Your task to perform on an android device: install app "DoorDash - Dasher" Image 0: 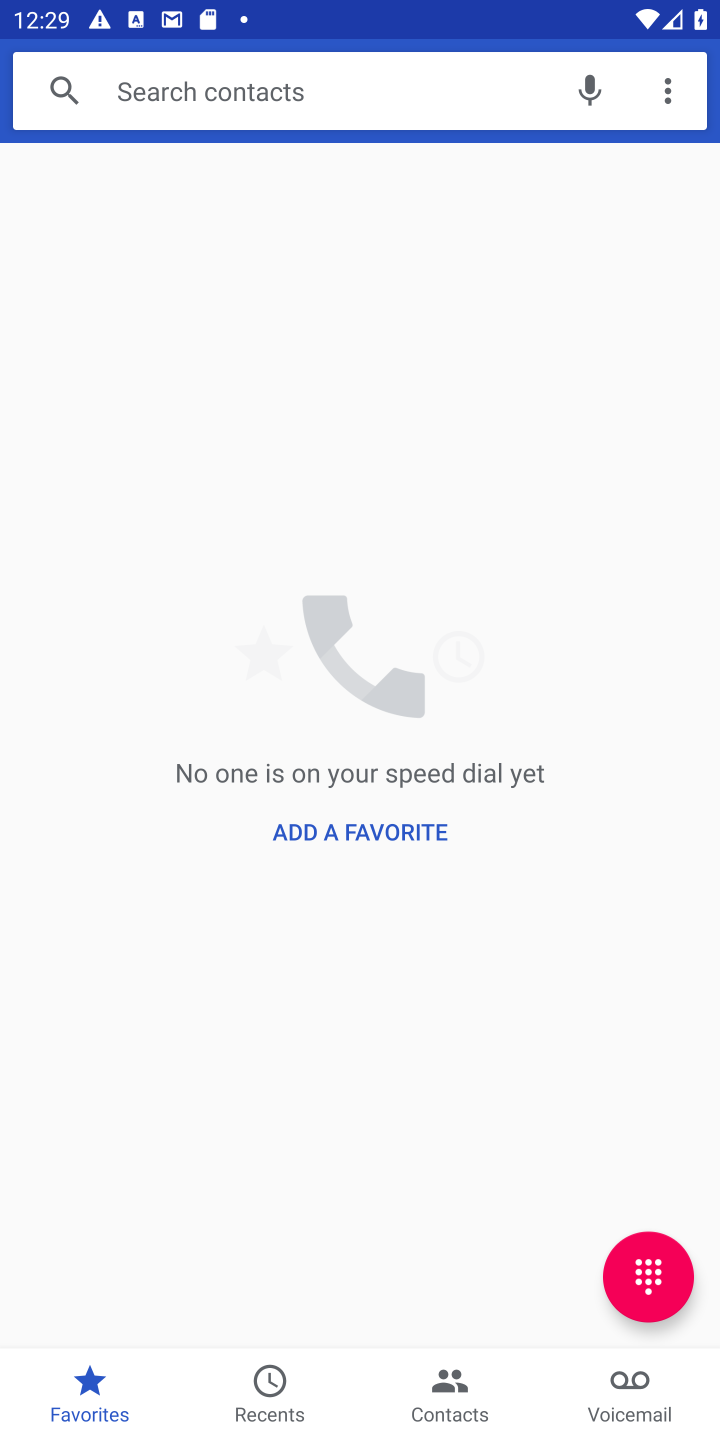
Step 0: press home button
Your task to perform on an android device: install app "DoorDash - Dasher" Image 1: 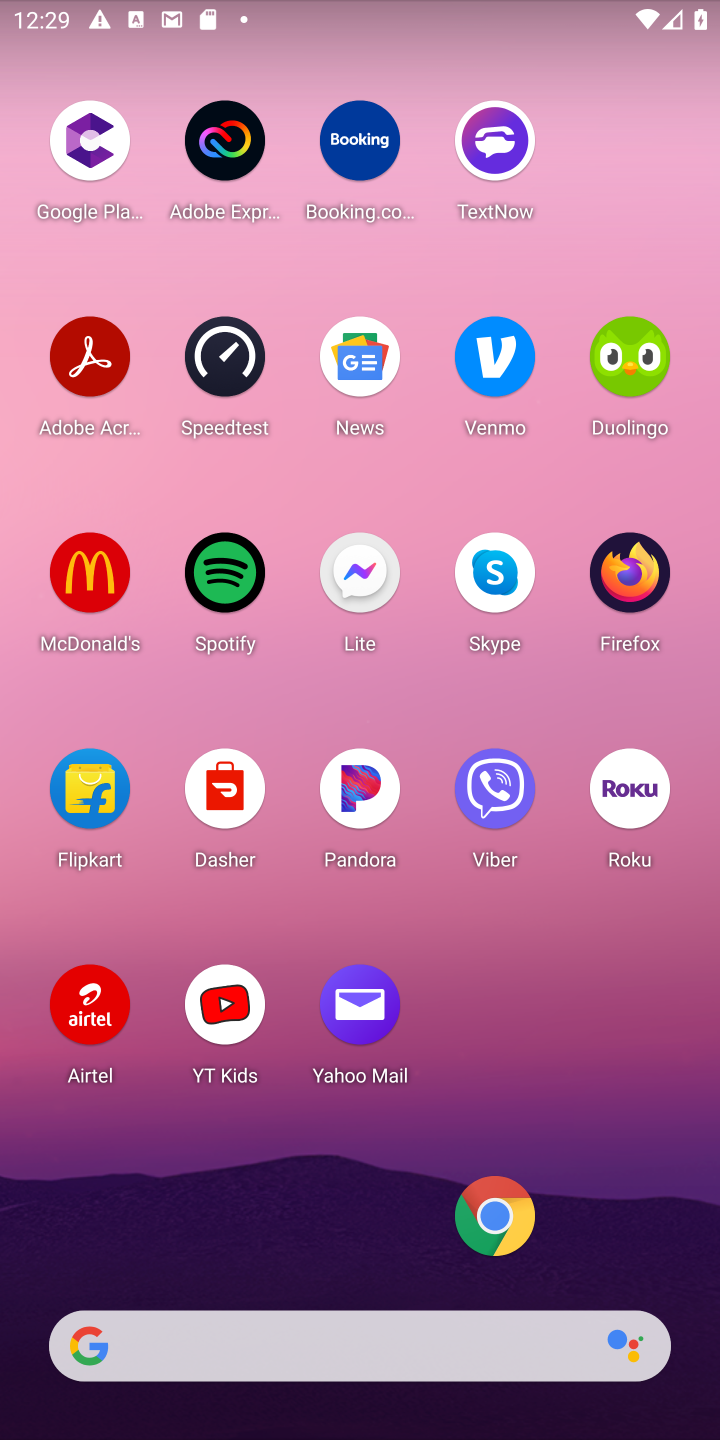
Step 1: press home button
Your task to perform on an android device: install app "DoorDash - Dasher" Image 2: 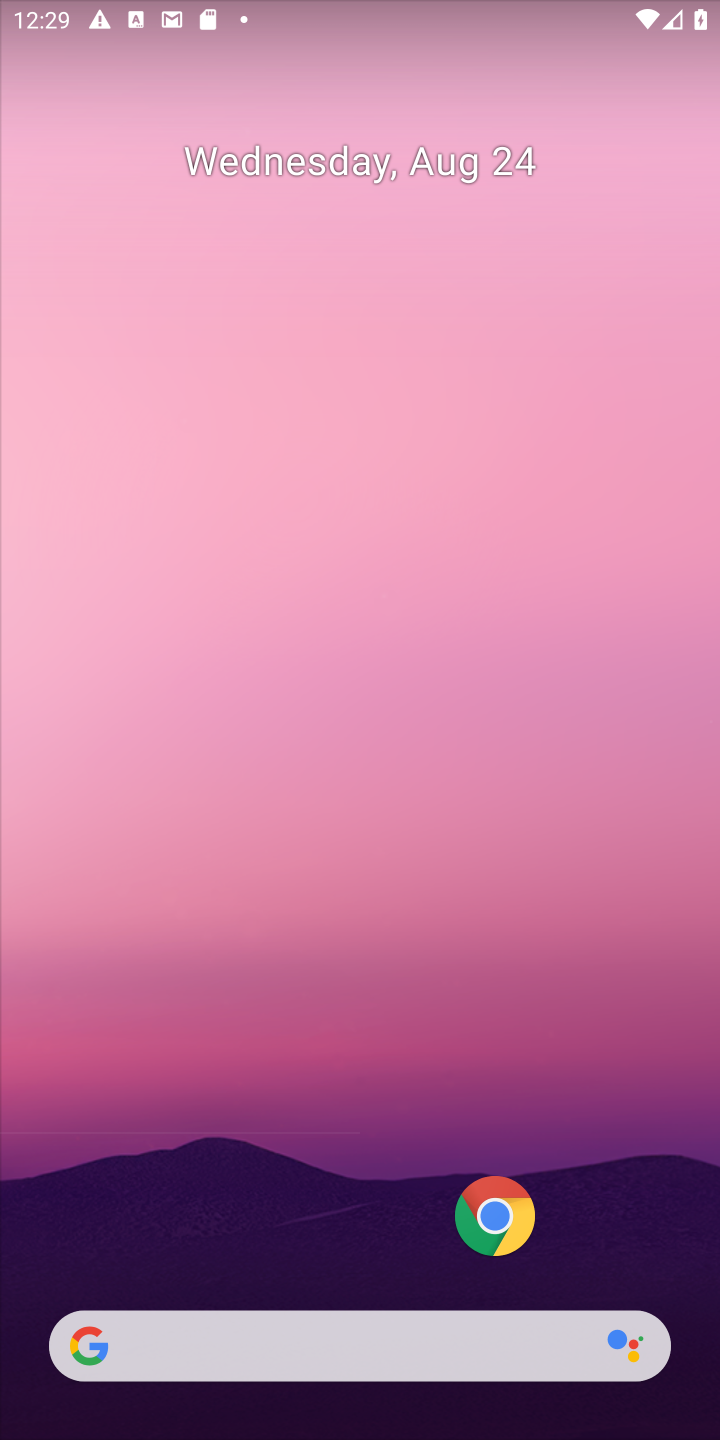
Step 2: drag from (314, 1359) to (185, 85)
Your task to perform on an android device: install app "DoorDash - Dasher" Image 3: 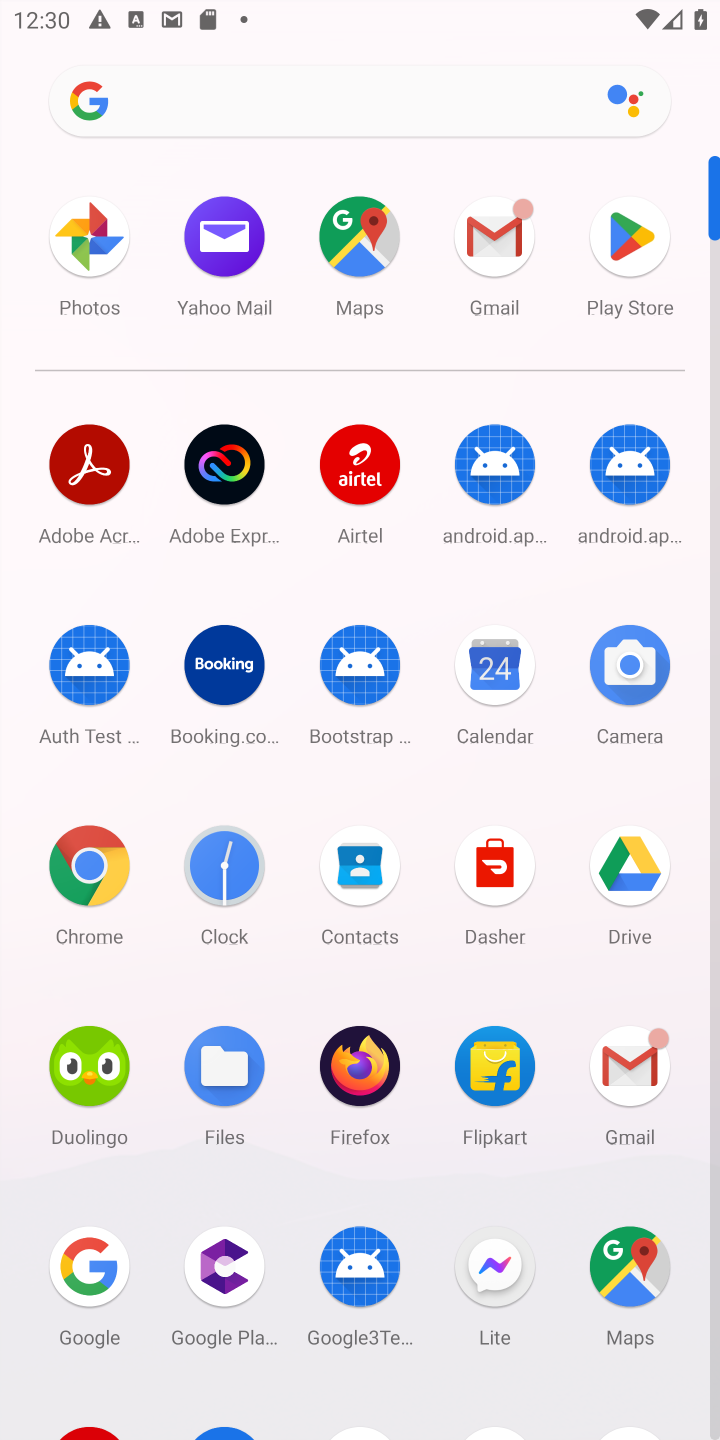
Step 3: click (628, 260)
Your task to perform on an android device: install app "DoorDash - Dasher" Image 4: 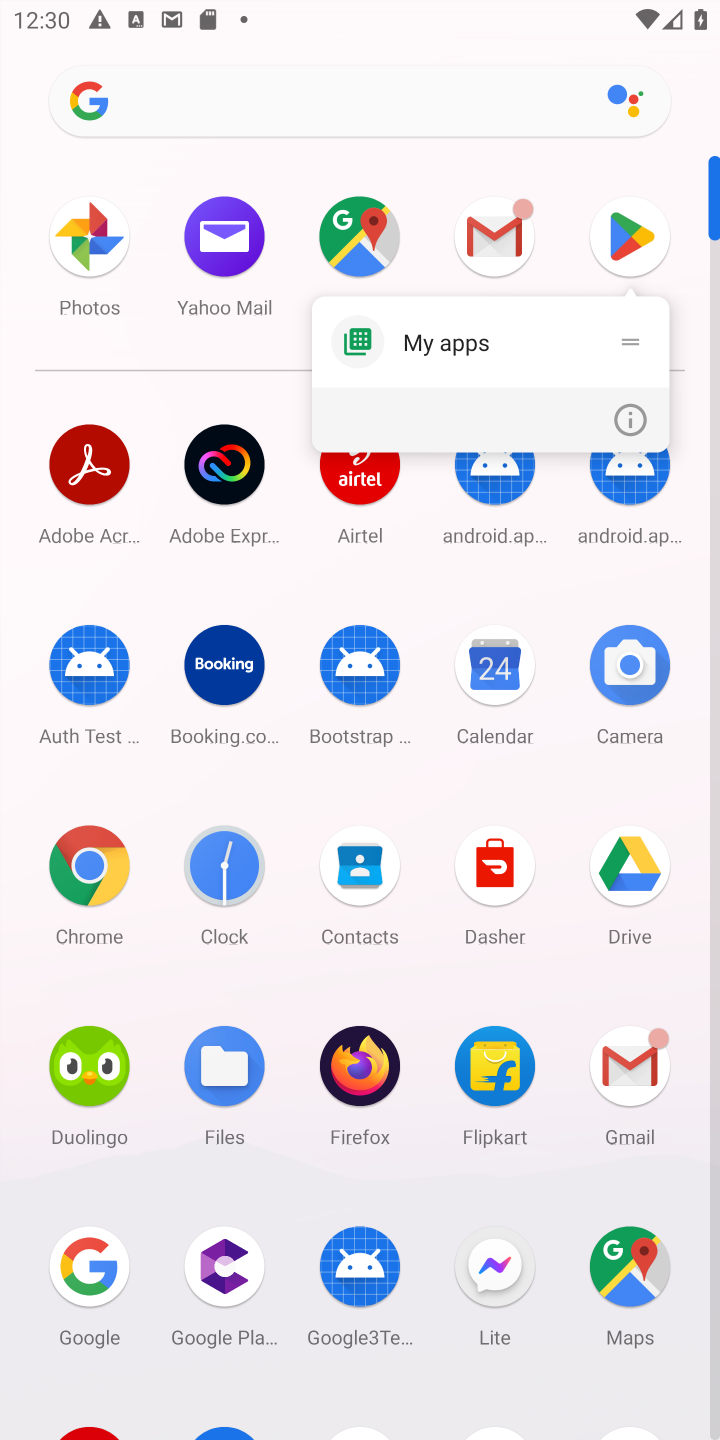
Step 4: click (628, 260)
Your task to perform on an android device: install app "DoorDash - Dasher" Image 5: 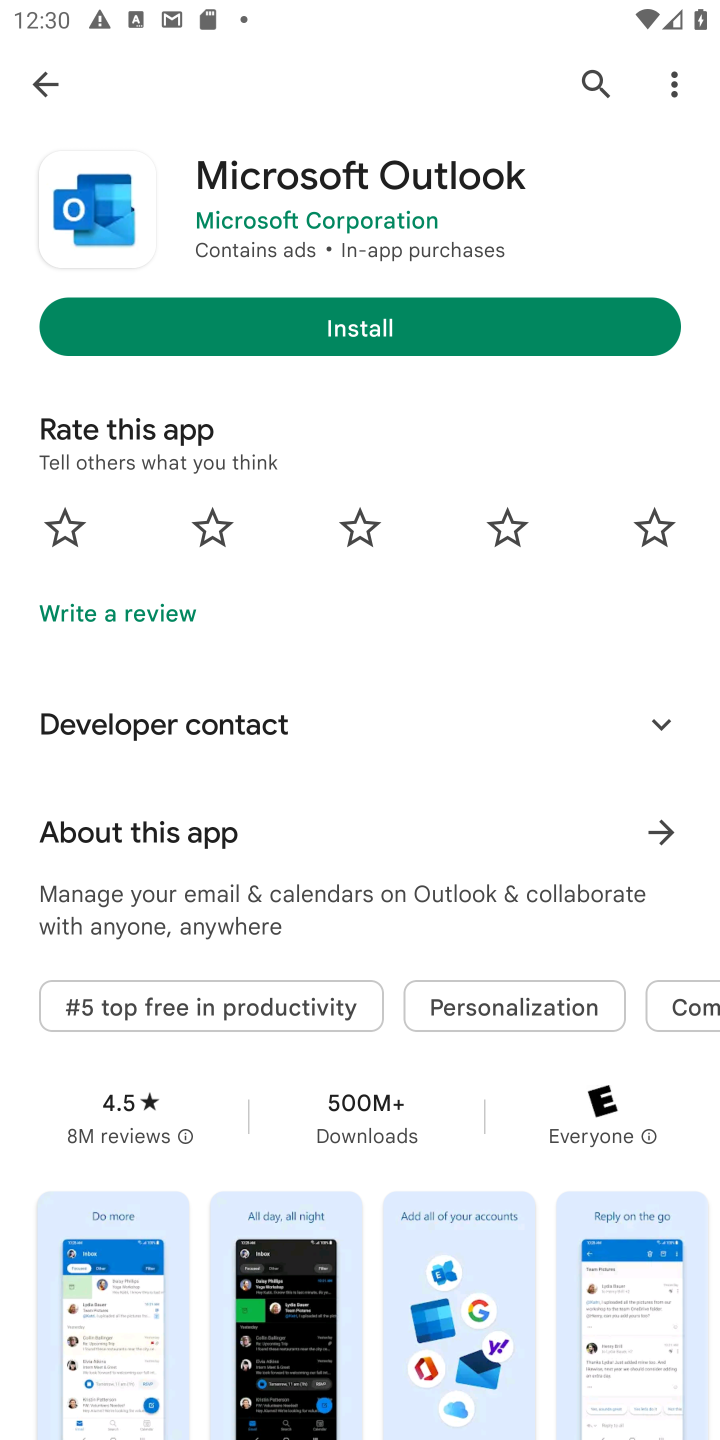
Step 5: press back button
Your task to perform on an android device: install app "DoorDash - Dasher" Image 6: 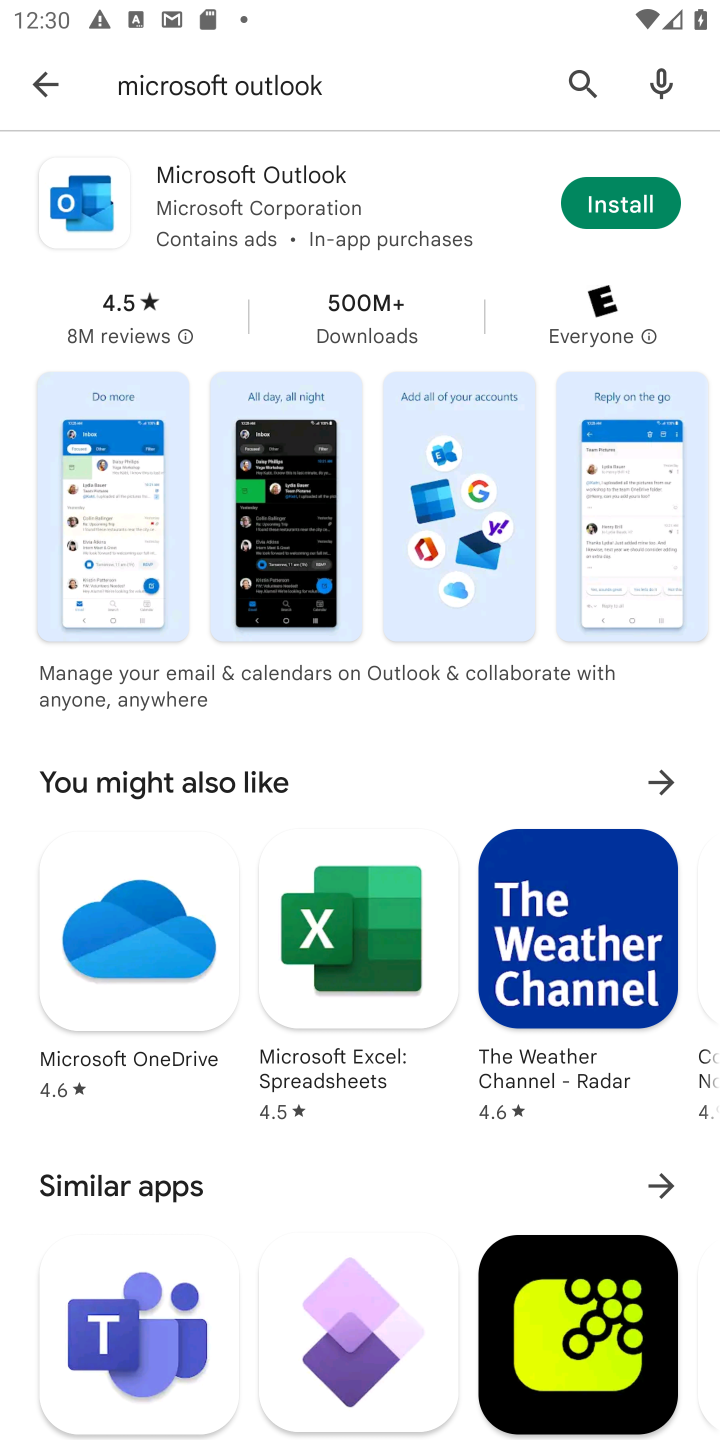
Step 6: press back button
Your task to perform on an android device: install app "DoorDash - Dasher" Image 7: 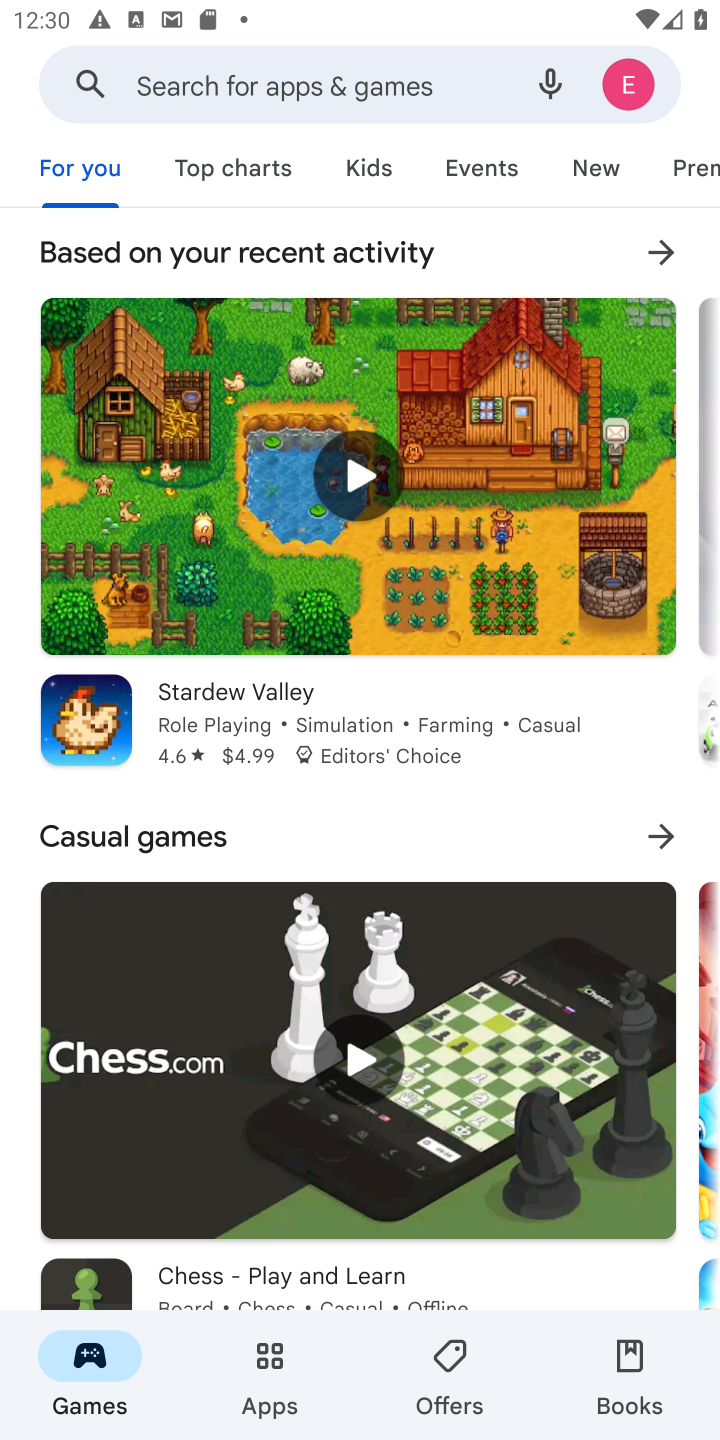
Step 7: click (365, 87)
Your task to perform on an android device: install app "DoorDash - Dasher" Image 8: 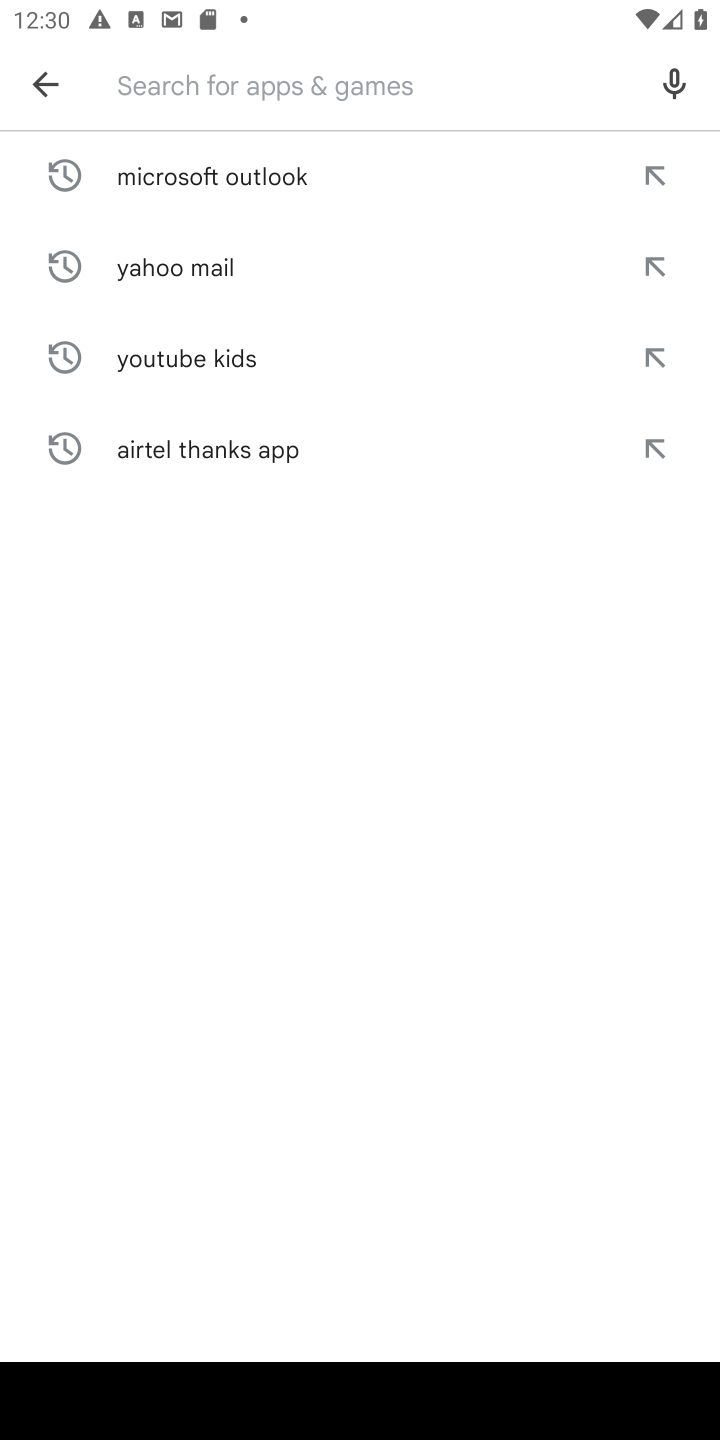
Step 8: type "DoorDash - Dasher"
Your task to perform on an android device: install app "DoorDash - Dasher" Image 9: 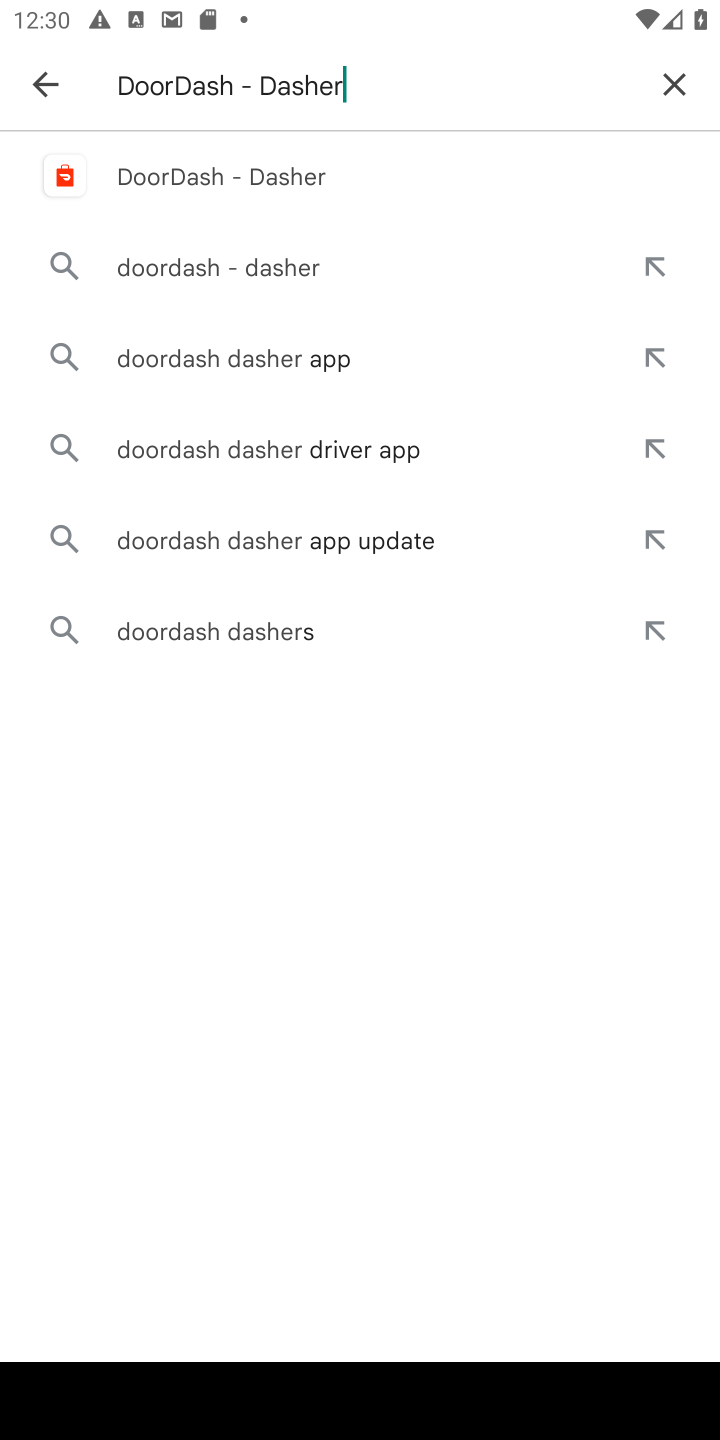
Step 9: click (253, 172)
Your task to perform on an android device: install app "DoorDash - Dasher" Image 10: 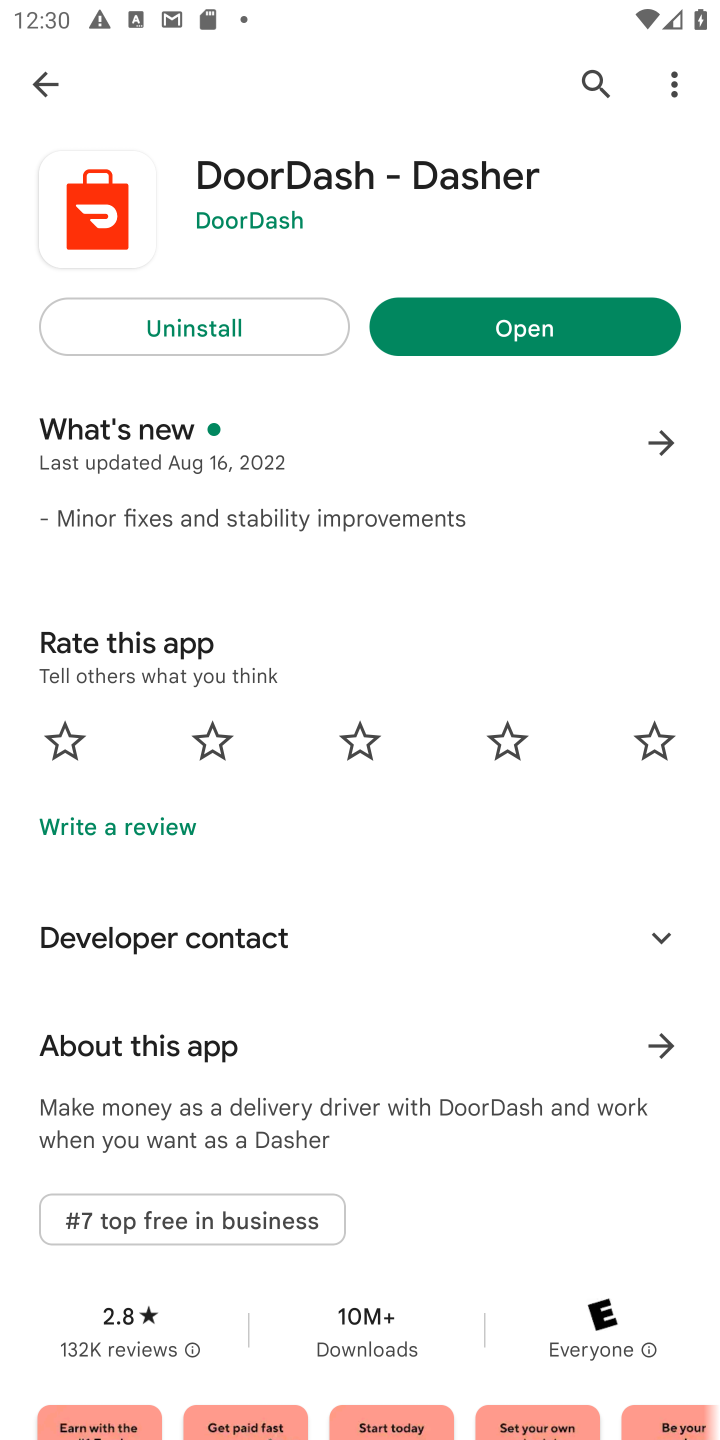
Step 10: task complete